Your task to perform on an android device: toggle pop-ups in chrome Image 0: 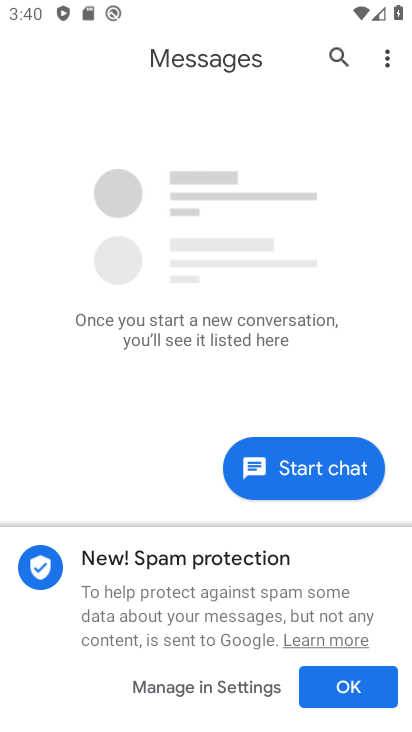
Step 0: press back button
Your task to perform on an android device: toggle pop-ups in chrome Image 1: 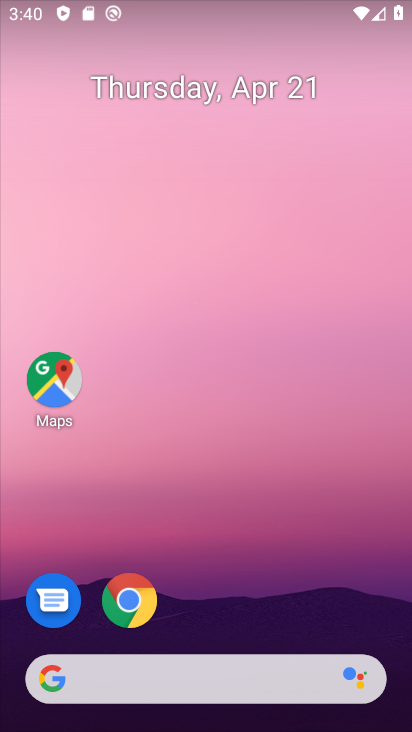
Step 1: click (135, 612)
Your task to perform on an android device: toggle pop-ups in chrome Image 2: 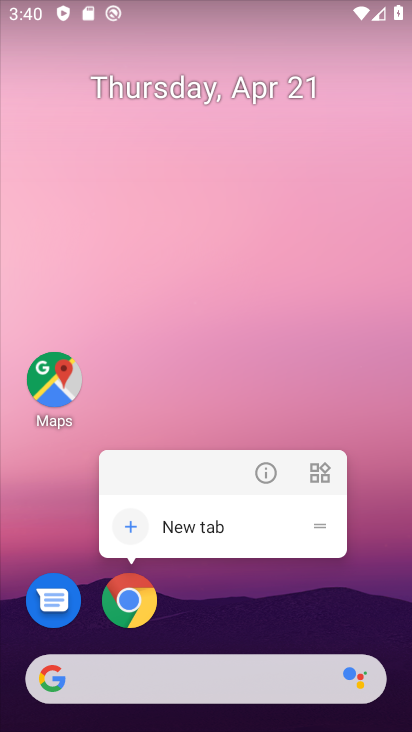
Step 2: click (130, 595)
Your task to perform on an android device: toggle pop-ups in chrome Image 3: 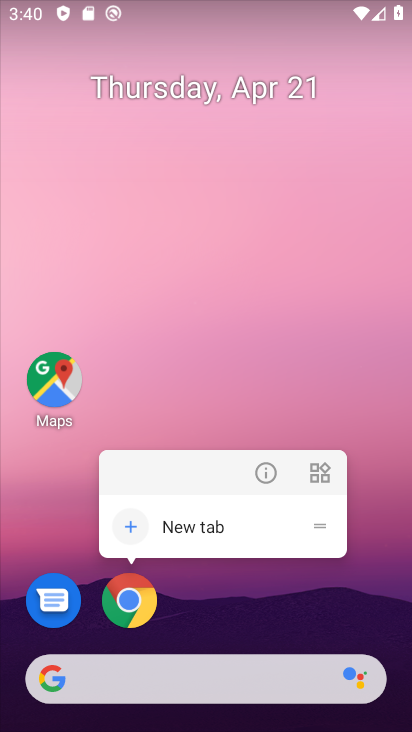
Step 3: click (130, 598)
Your task to perform on an android device: toggle pop-ups in chrome Image 4: 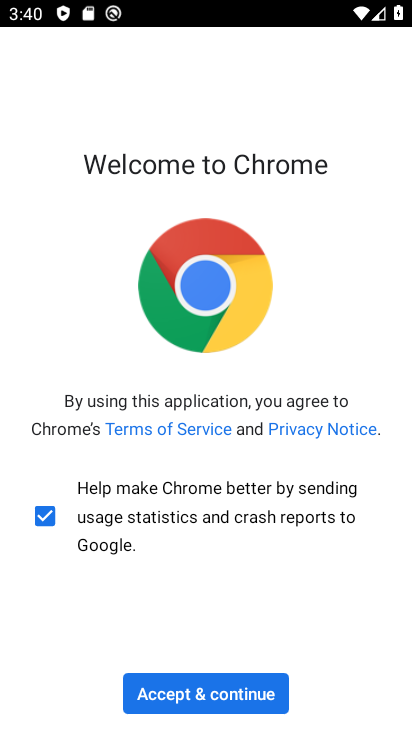
Step 4: click (199, 702)
Your task to perform on an android device: toggle pop-ups in chrome Image 5: 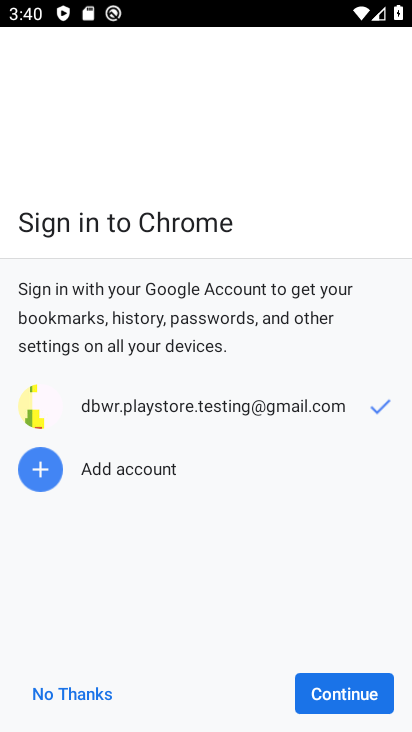
Step 5: click (367, 690)
Your task to perform on an android device: toggle pop-ups in chrome Image 6: 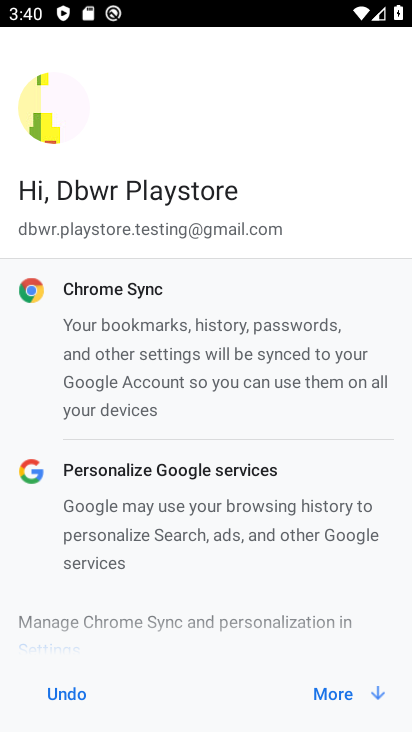
Step 6: click (367, 690)
Your task to perform on an android device: toggle pop-ups in chrome Image 7: 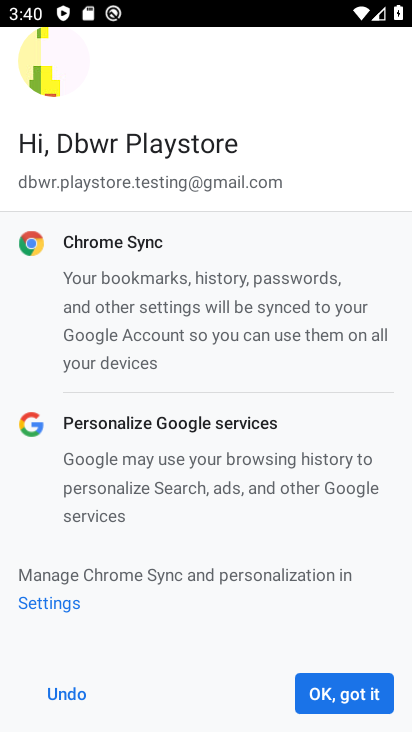
Step 7: click (367, 690)
Your task to perform on an android device: toggle pop-ups in chrome Image 8: 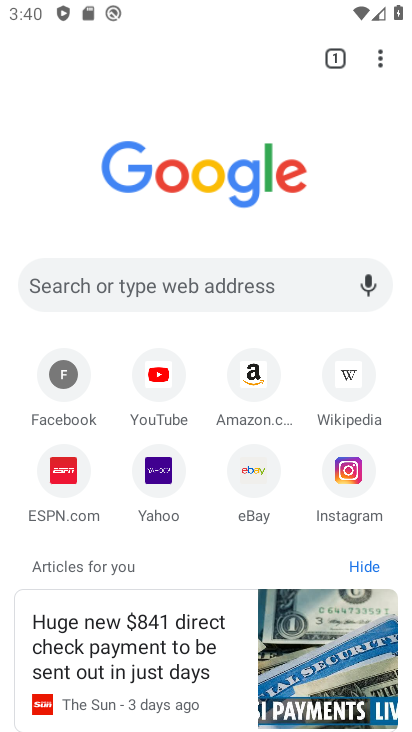
Step 8: drag from (381, 60) to (260, 487)
Your task to perform on an android device: toggle pop-ups in chrome Image 9: 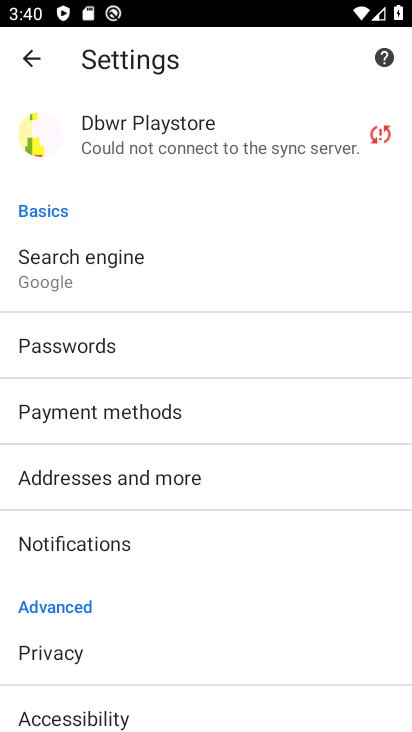
Step 9: drag from (159, 585) to (311, 263)
Your task to perform on an android device: toggle pop-ups in chrome Image 10: 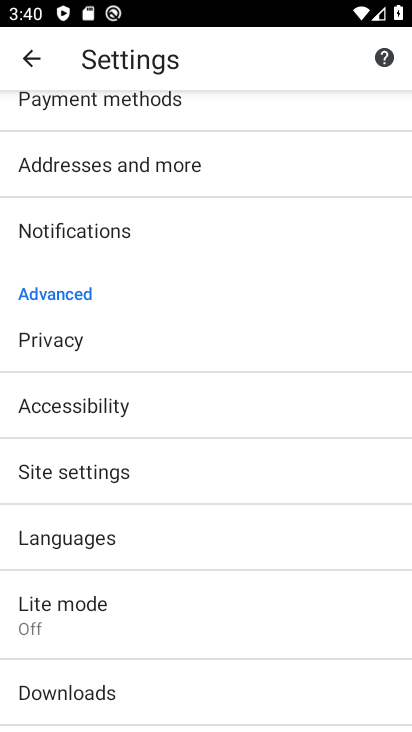
Step 10: click (174, 477)
Your task to perform on an android device: toggle pop-ups in chrome Image 11: 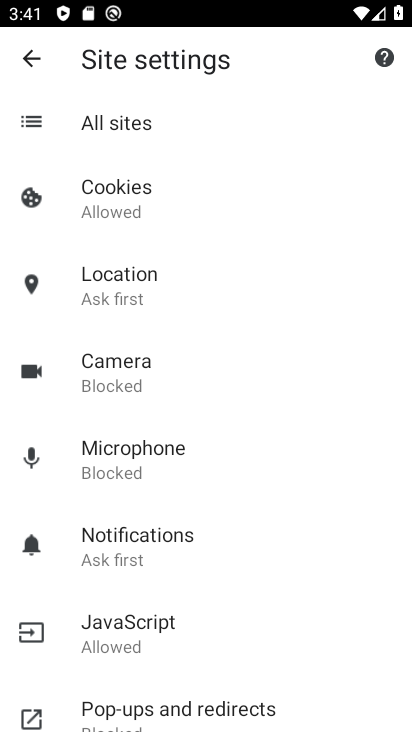
Step 11: click (168, 705)
Your task to perform on an android device: toggle pop-ups in chrome Image 12: 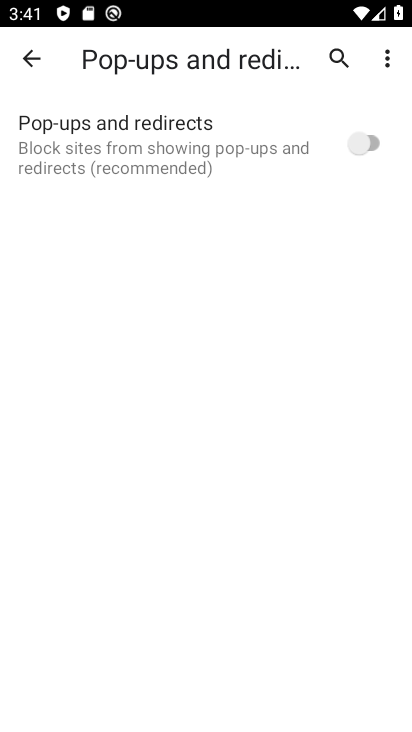
Step 12: click (385, 139)
Your task to perform on an android device: toggle pop-ups in chrome Image 13: 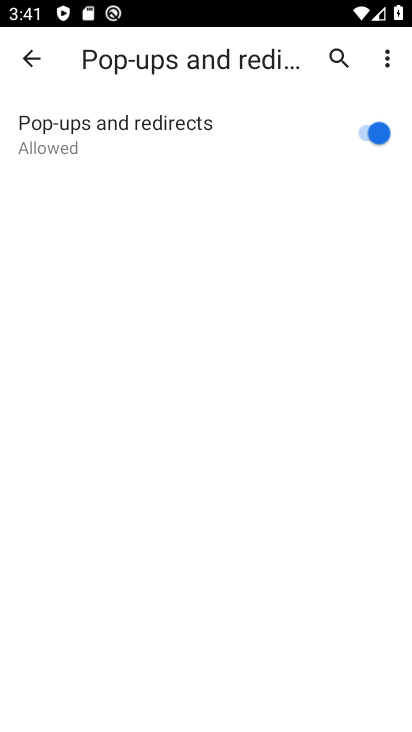
Step 13: task complete